Your task to perform on an android device: Open Reddit.com Image 0: 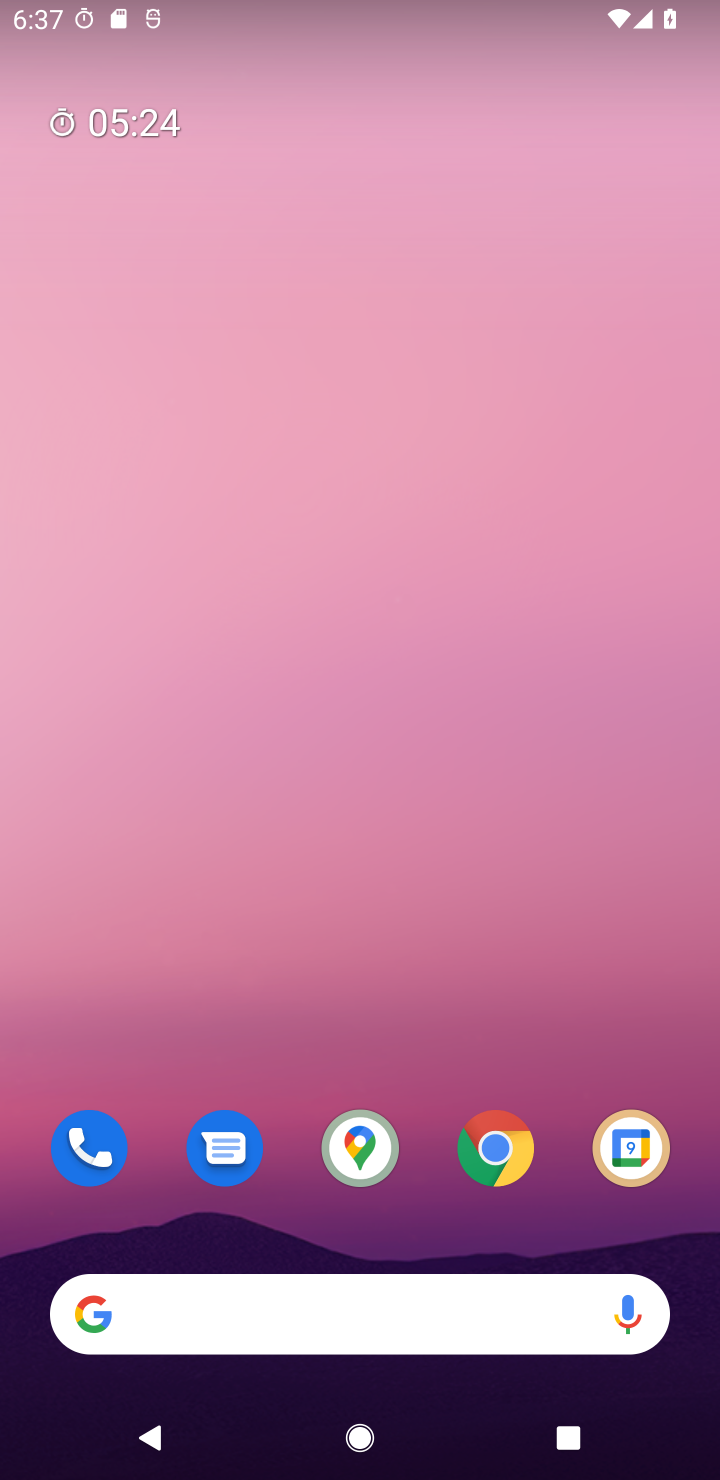
Step 0: click (507, 1171)
Your task to perform on an android device: Open Reddit.com Image 1: 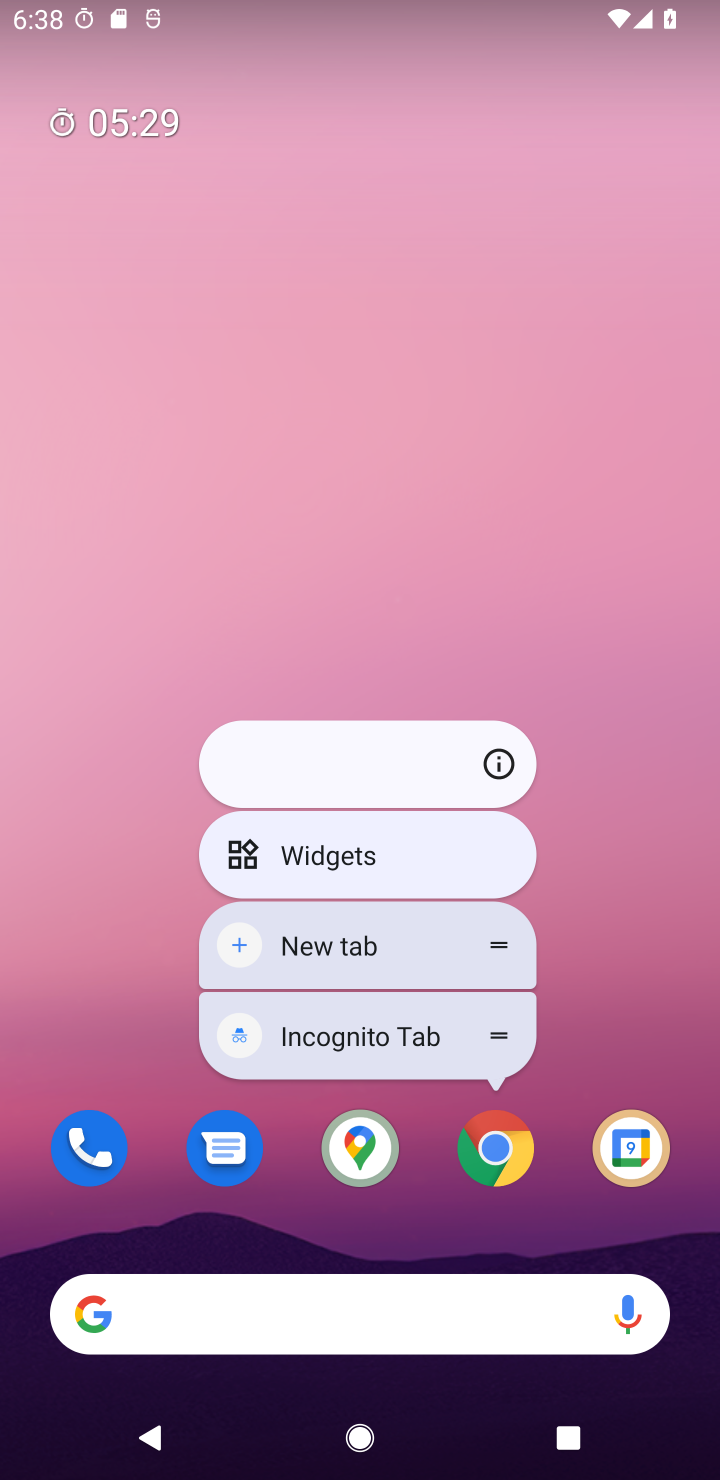
Step 1: click (472, 1169)
Your task to perform on an android device: Open Reddit.com Image 2: 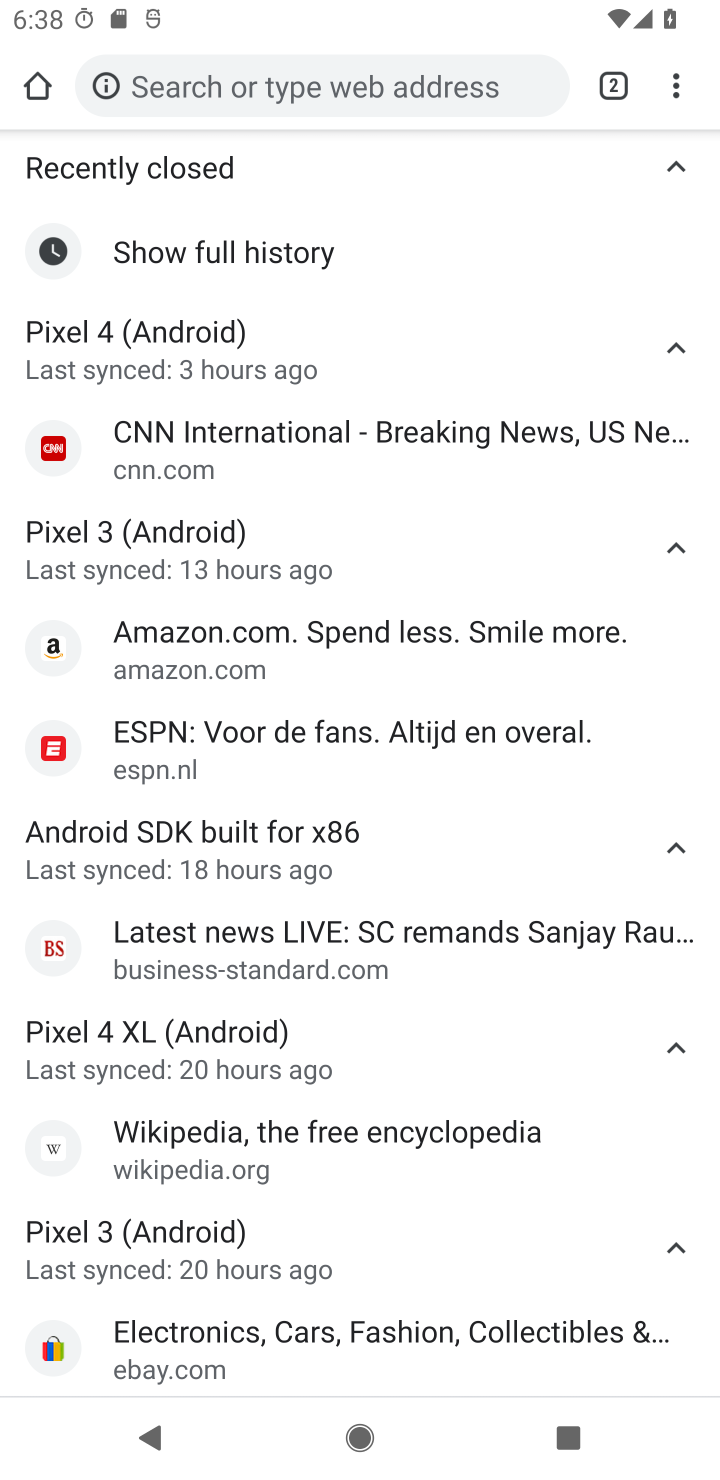
Step 2: click (264, 76)
Your task to perform on an android device: Open Reddit.com Image 3: 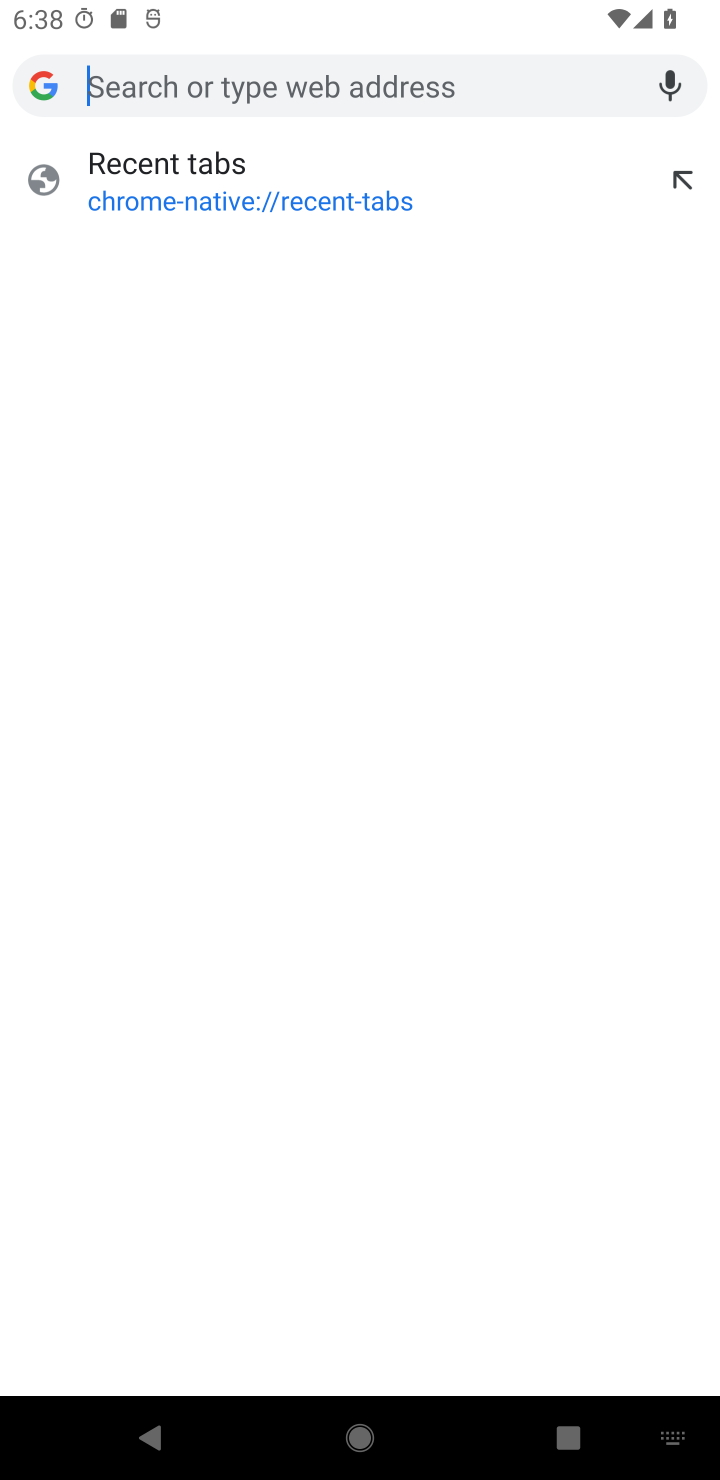
Step 3: type "reddit.com"
Your task to perform on an android device: Open Reddit.com Image 4: 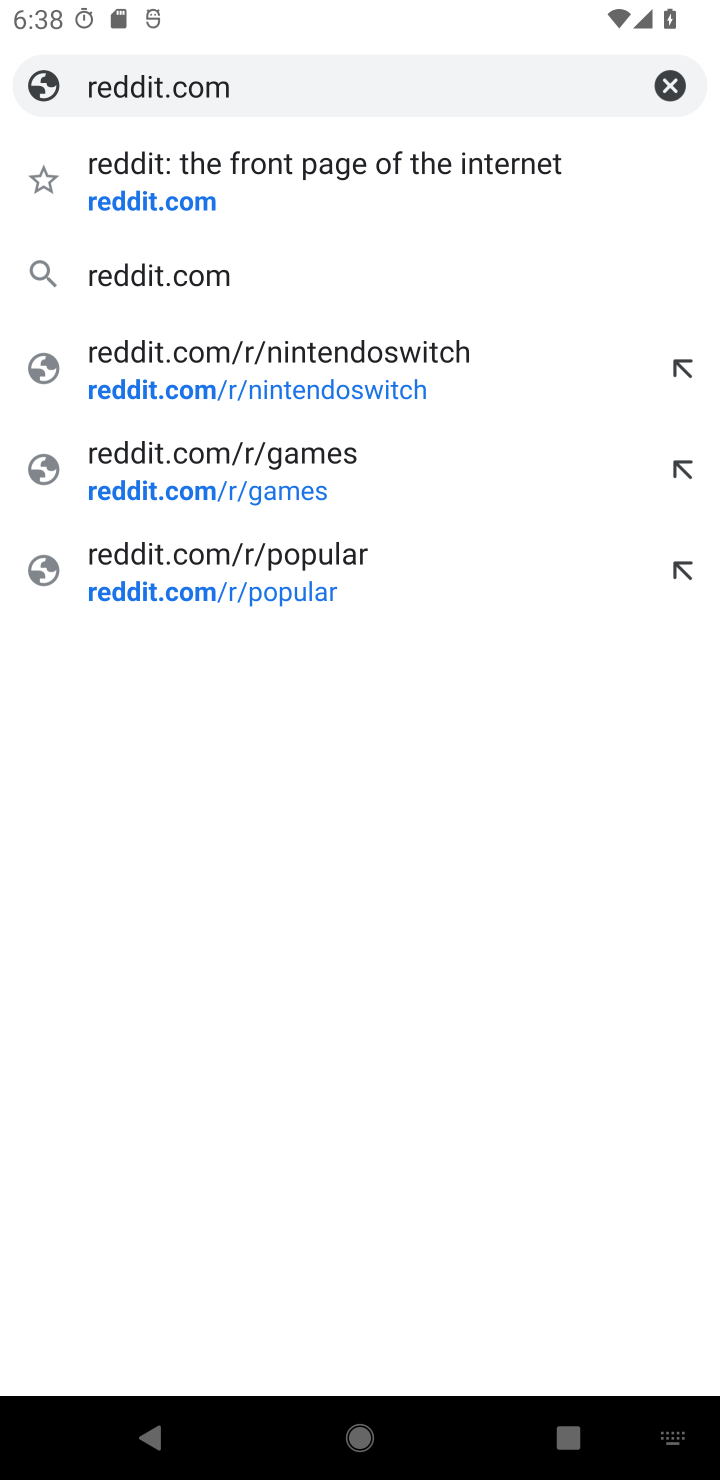
Step 4: click (241, 173)
Your task to perform on an android device: Open Reddit.com Image 5: 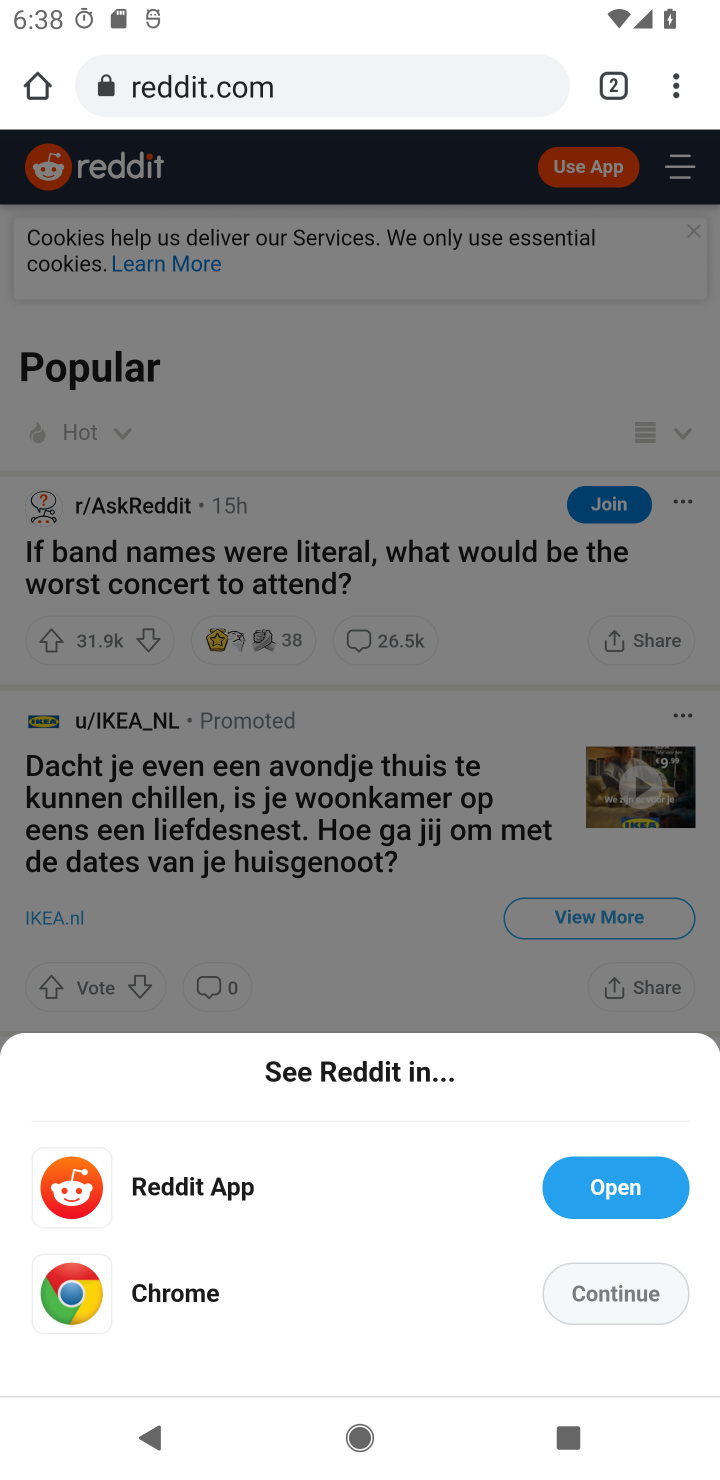
Step 5: click (612, 1303)
Your task to perform on an android device: Open Reddit.com Image 6: 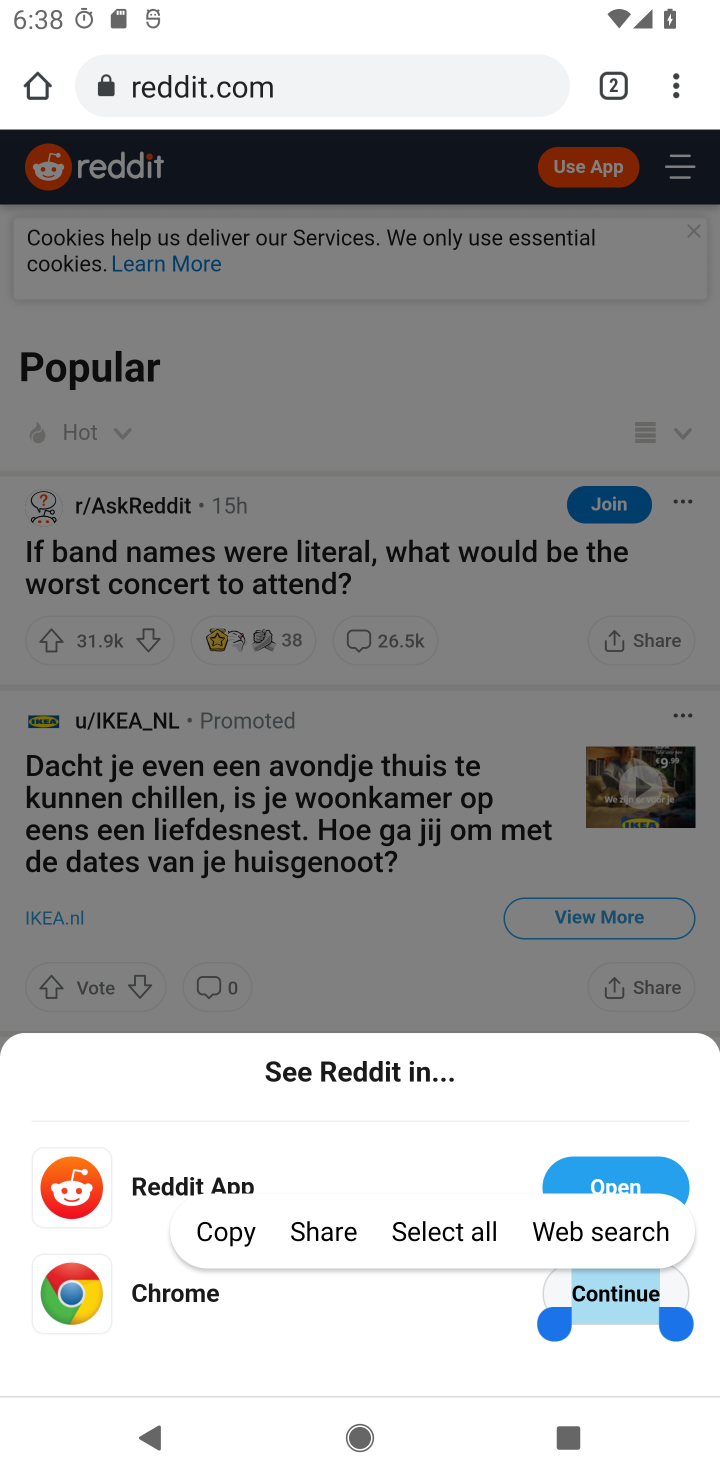
Step 6: click (553, 1294)
Your task to perform on an android device: Open Reddit.com Image 7: 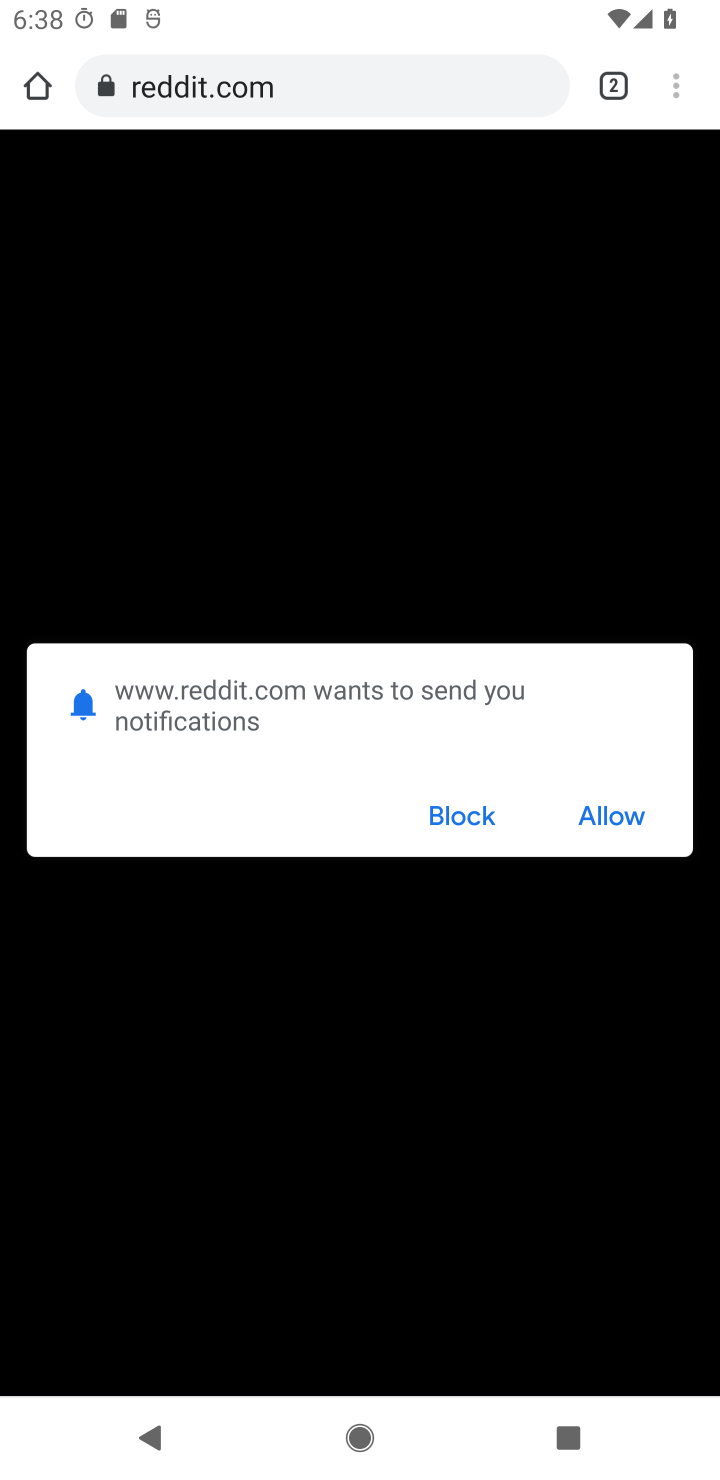
Step 7: task complete